Your task to perform on an android device: Open calendar and show me the third week of next month Image 0: 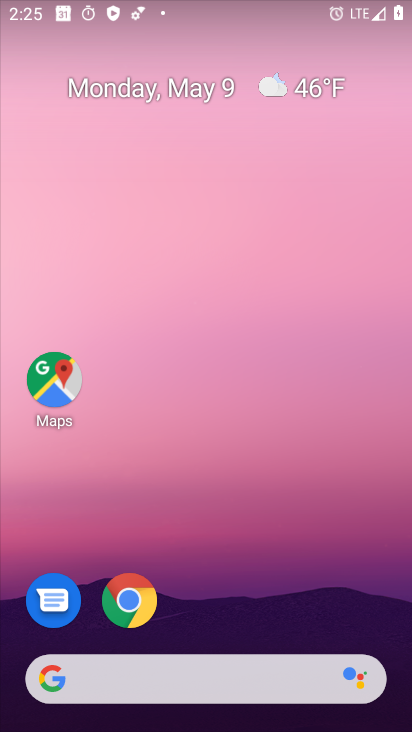
Step 0: drag from (197, 680) to (234, 163)
Your task to perform on an android device: Open calendar and show me the third week of next month Image 1: 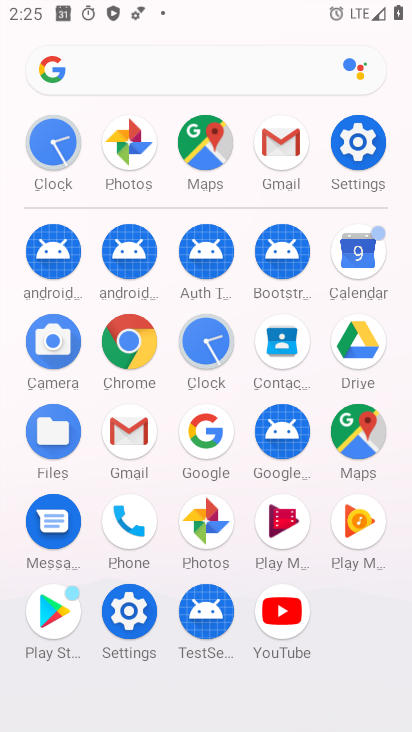
Step 1: click (359, 264)
Your task to perform on an android device: Open calendar and show me the third week of next month Image 2: 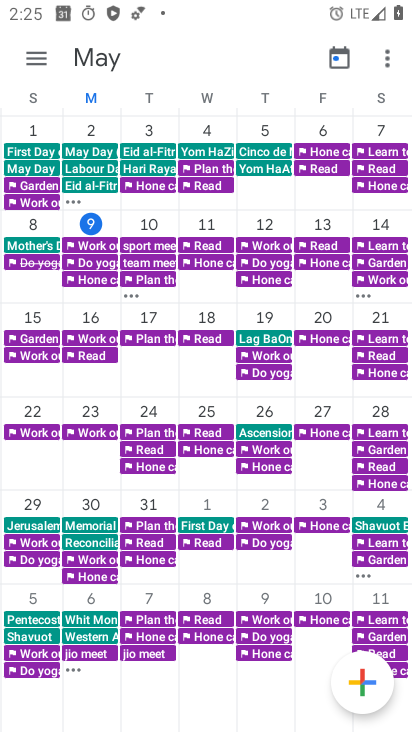
Step 2: task complete